Your task to perform on an android device: Open CNN.com Image 0: 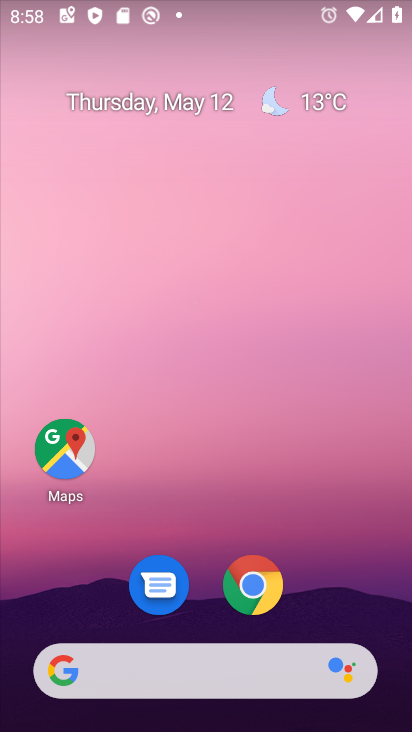
Step 0: click (246, 674)
Your task to perform on an android device: Open CNN.com Image 1: 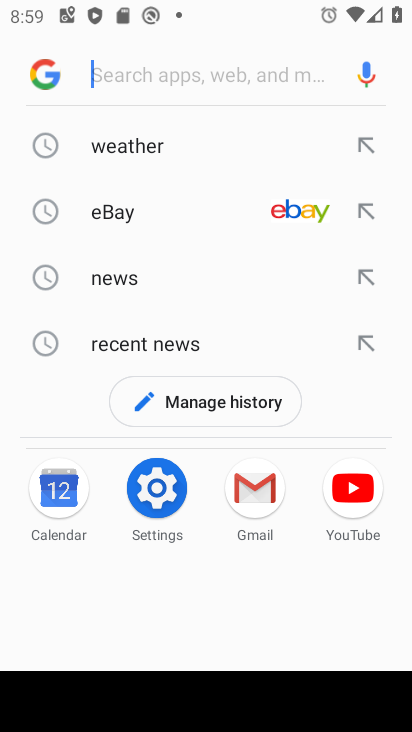
Step 1: type "cnn.com"
Your task to perform on an android device: Open CNN.com Image 2: 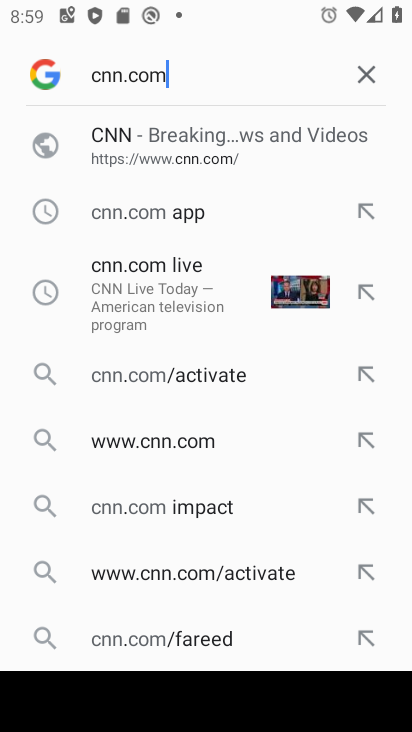
Step 2: click (119, 139)
Your task to perform on an android device: Open CNN.com Image 3: 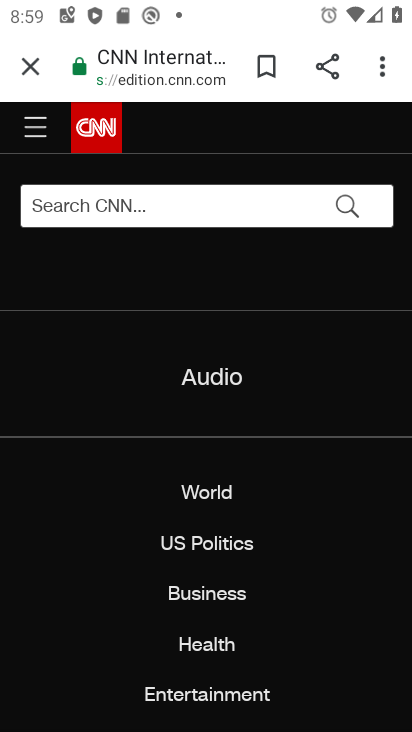
Step 3: task complete